Your task to perform on an android device: turn vacation reply on in the gmail app Image 0: 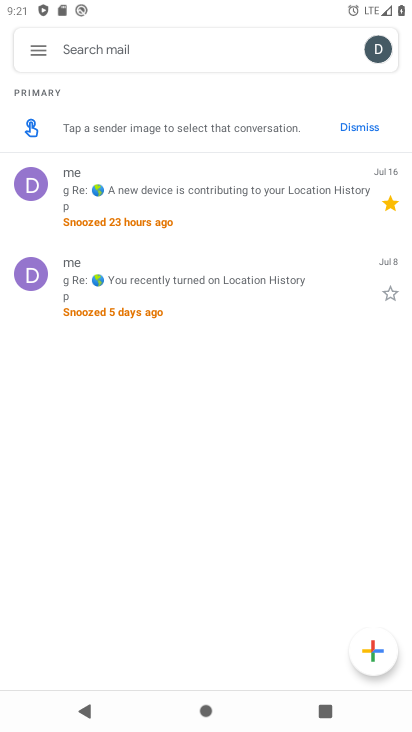
Step 0: click (34, 50)
Your task to perform on an android device: turn vacation reply on in the gmail app Image 1: 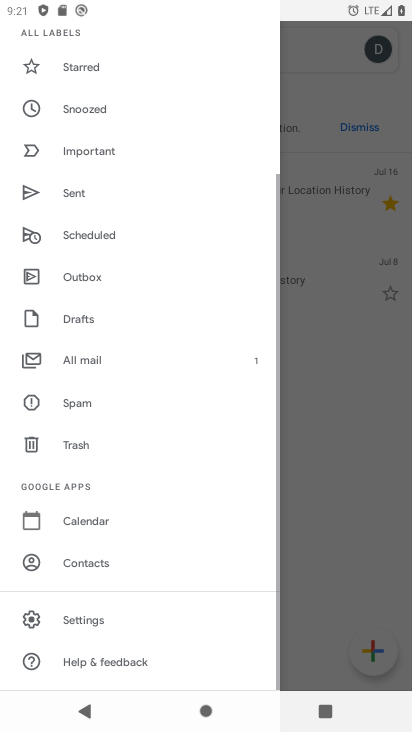
Step 1: drag from (99, 521) to (314, 59)
Your task to perform on an android device: turn vacation reply on in the gmail app Image 2: 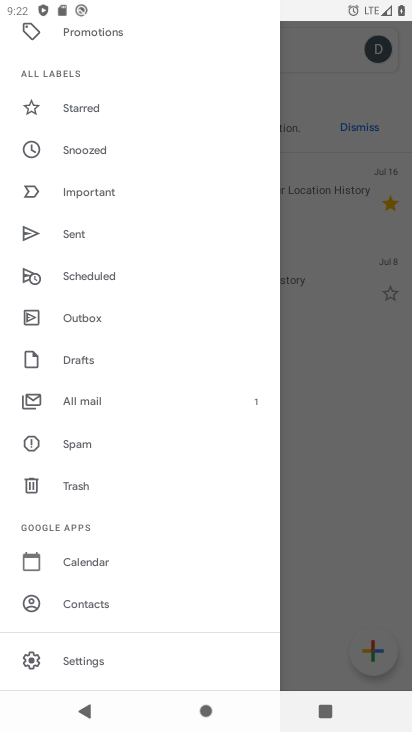
Step 2: drag from (86, 609) to (328, 10)
Your task to perform on an android device: turn vacation reply on in the gmail app Image 3: 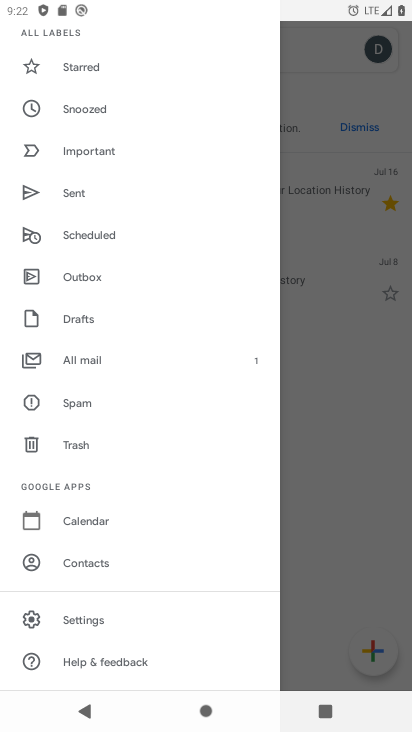
Step 3: click (75, 609)
Your task to perform on an android device: turn vacation reply on in the gmail app Image 4: 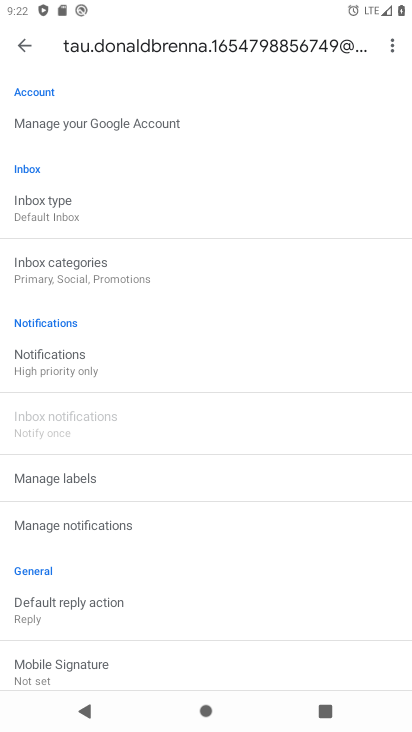
Step 4: drag from (166, 516) to (208, 24)
Your task to perform on an android device: turn vacation reply on in the gmail app Image 5: 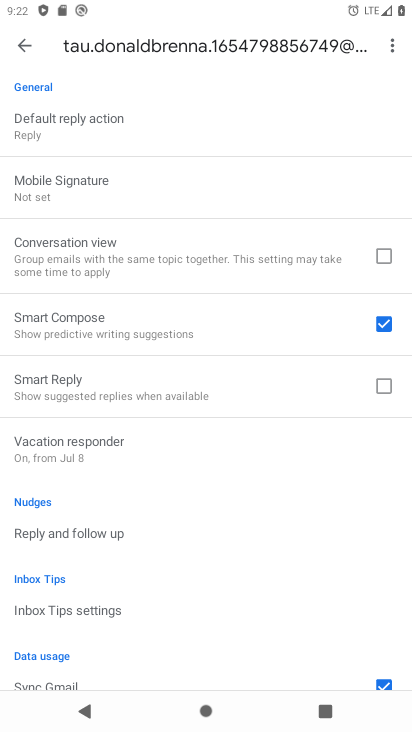
Step 5: click (140, 452)
Your task to perform on an android device: turn vacation reply on in the gmail app Image 6: 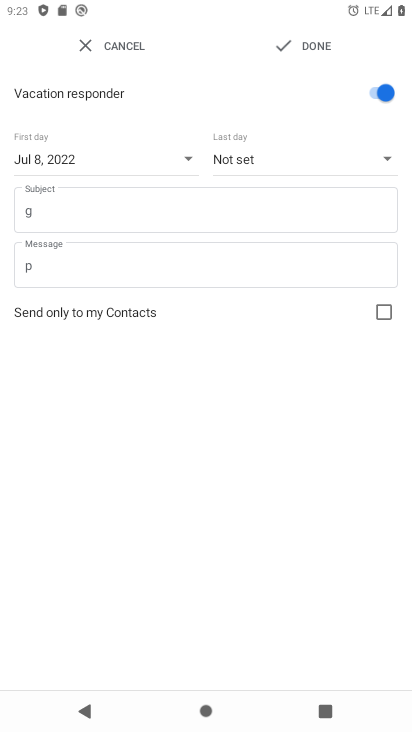
Step 6: task complete